Your task to perform on an android device: What's the weather going to be tomorrow? Image 0: 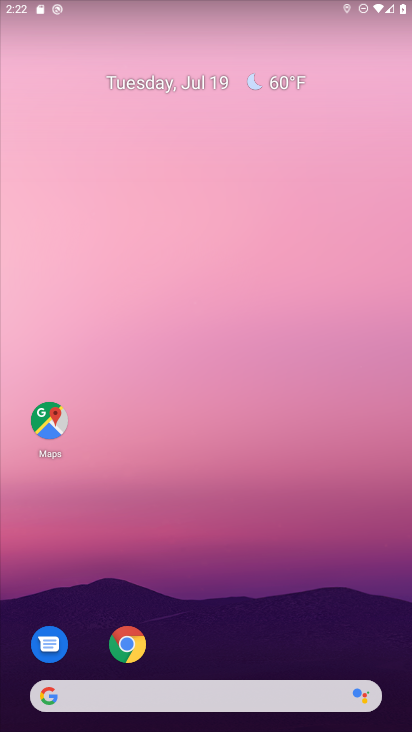
Step 0: click (210, 704)
Your task to perform on an android device: What's the weather going to be tomorrow? Image 1: 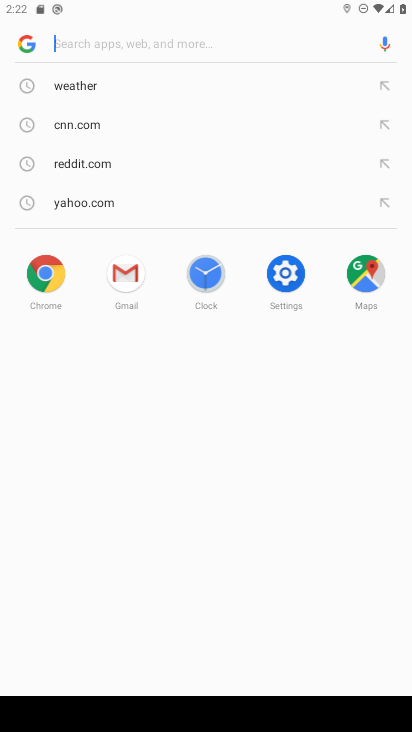
Step 1: click (68, 86)
Your task to perform on an android device: What's the weather going to be tomorrow? Image 2: 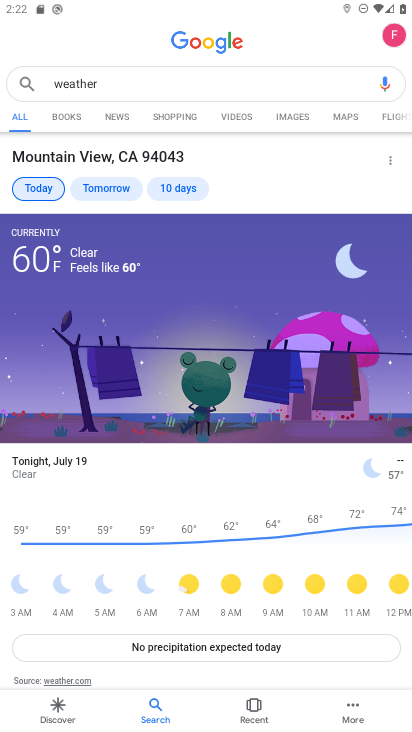
Step 2: click (82, 195)
Your task to perform on an android device: What's the weather going to be tomorrow? Image 3: 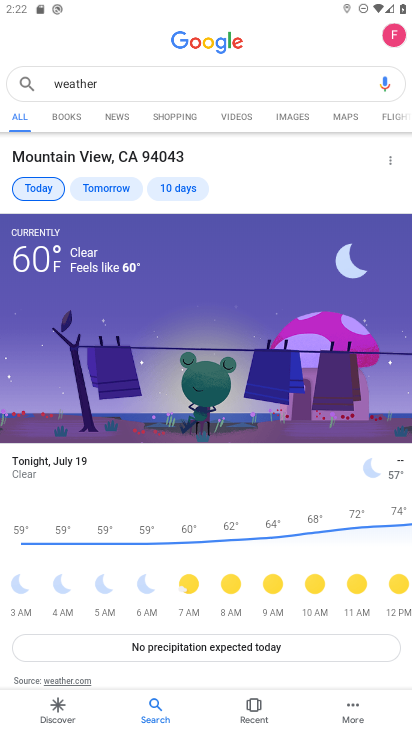
Step 3: click (95, 191)
Your task to perform on an android device: What's the weather going to be tomorrow? Image 4: 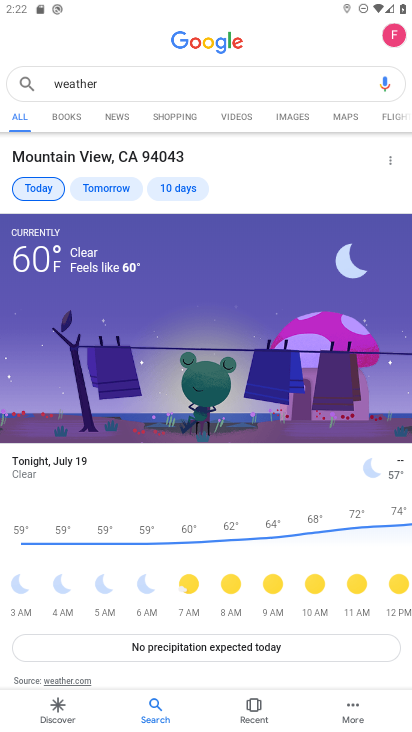
Step 4: click (95, 192)
Your task to perform on an android device: What's the weather going to be tomorrow? Image 5: 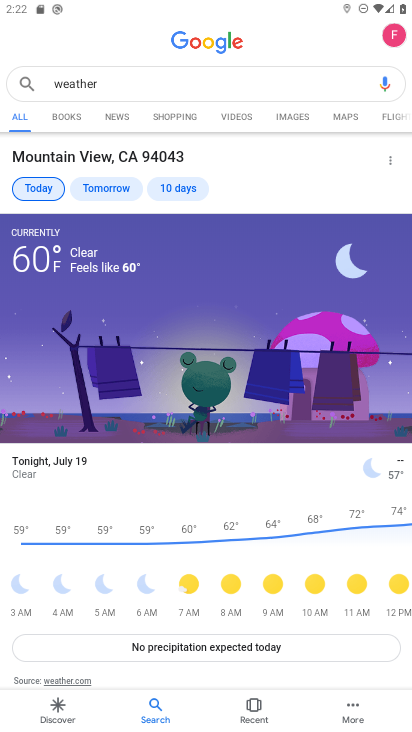
Step 5: click (95, 192)
Your task to perform on an android device: What's the weather going to be tomorrow? Image 6: 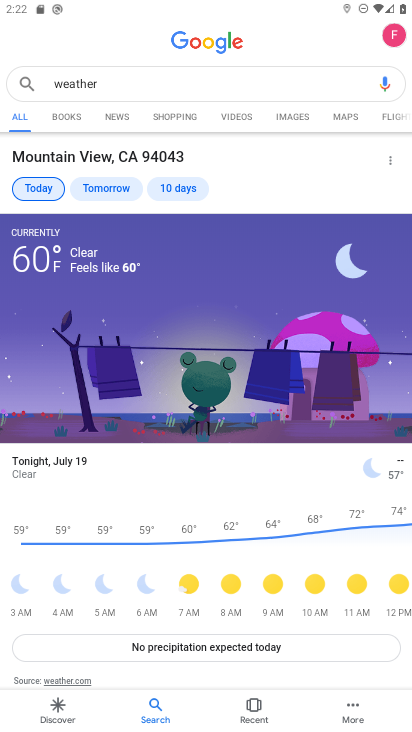
Step 6: click (97, 193)
Your task to perform on an android device: What's the weather going to be tomorrow? Image 7: 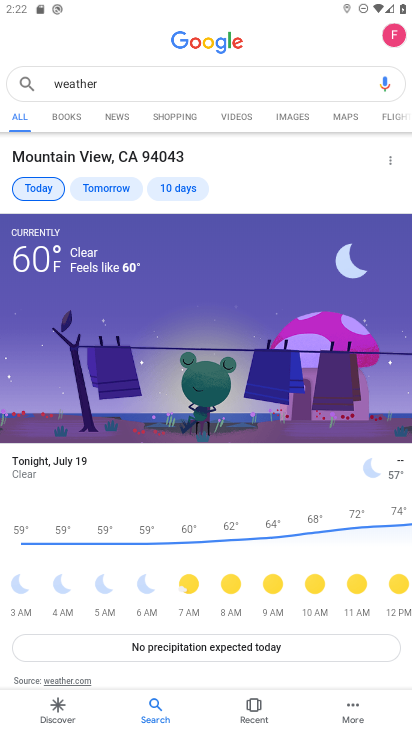
Step 7: click (97, 193)
Your task to perform on an android device: What's the weather going to be tomorrow? Image 8: 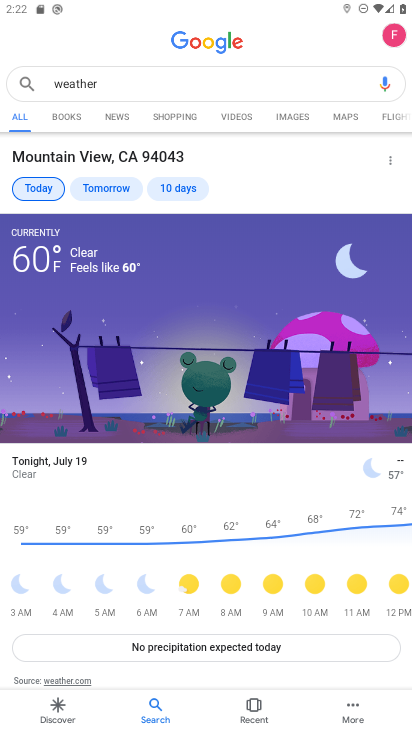
Step 8: task complete